Your task to perform on an android device: open device folders in google photos Image 0: 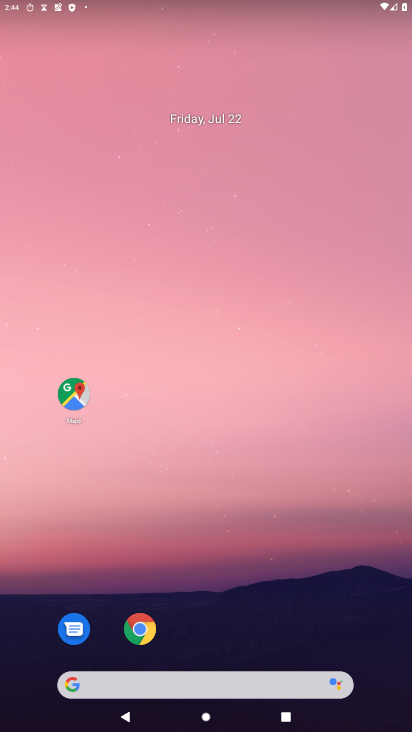
Step 0: drag from (266, 687) to (287, 79)
Your task to perform on an android device: open device folders in google photos Image 1: 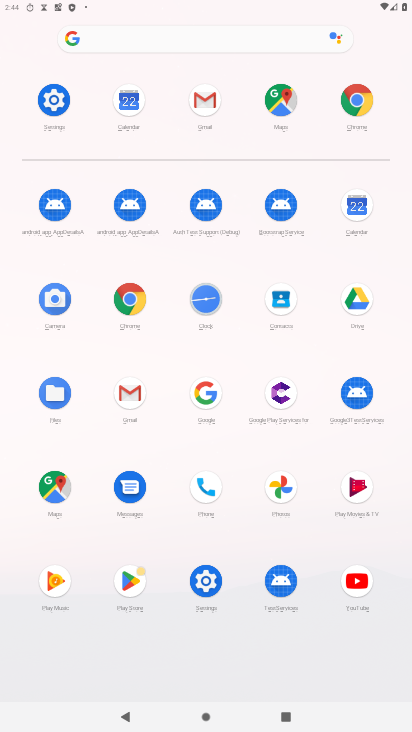
Step 1: click (276, 483)
Your task to perform on an android device: open device folders in google photos Image 2: 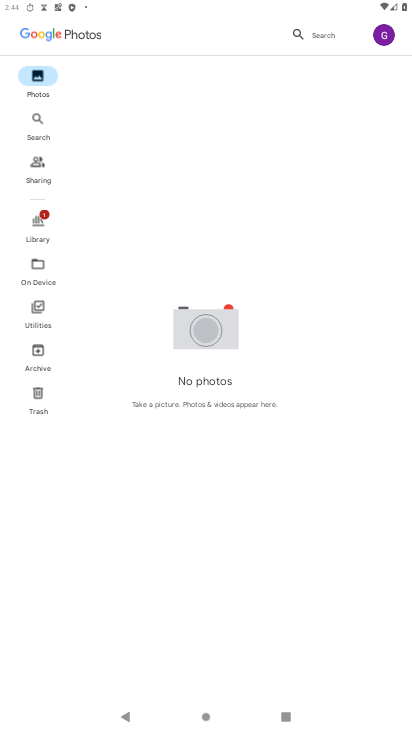
Step 2: click (34, 270)
Your task to perform on an android device: open device folders in google photos Image 3: 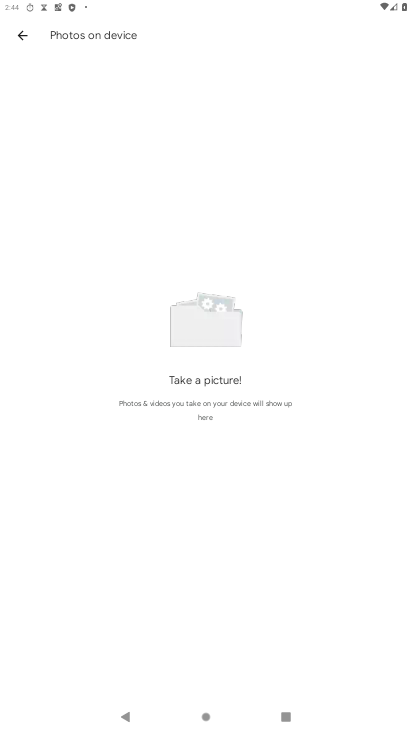
Step 3: task complete